Your task to perform on an android device: Open privacy settings Image 0: 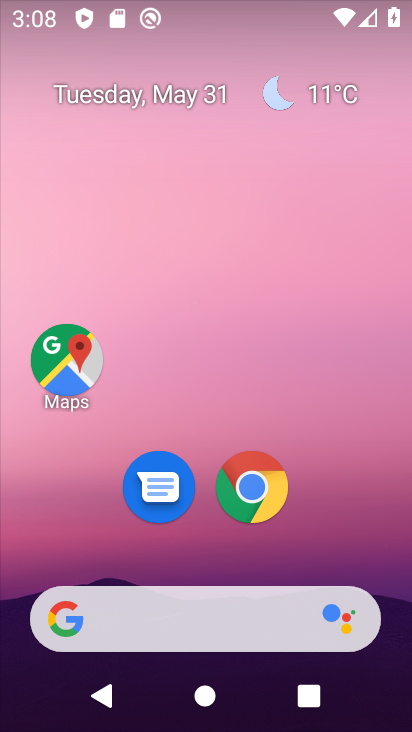
Step 0: drag from (314, 543) to (246, 90)
Your task to perform on an android device: Open privacy settings Image 1: 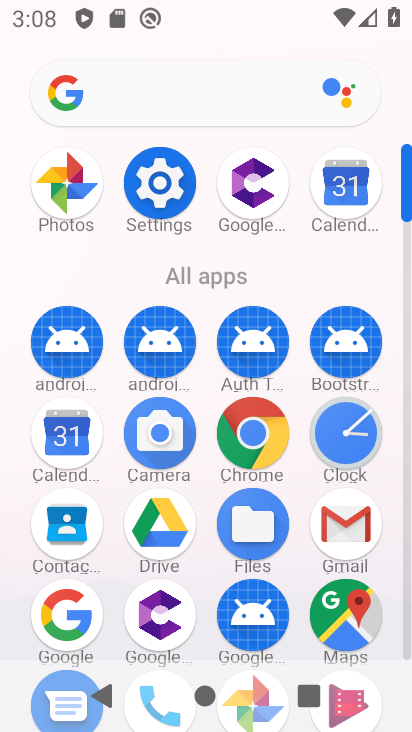
Step 1: click (160, 183)
Your task to perform on an android device: Open privacy settings Image 2: 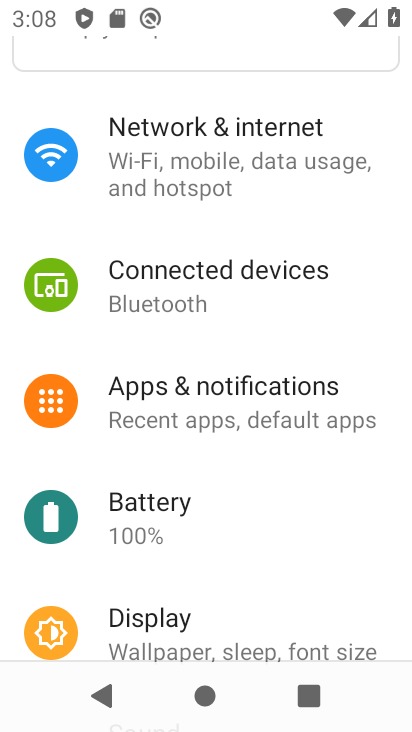
Step 2: drag from (158, 566) to (203, 477)
Your task to perform on an android device: Open privacy settings Image 3: 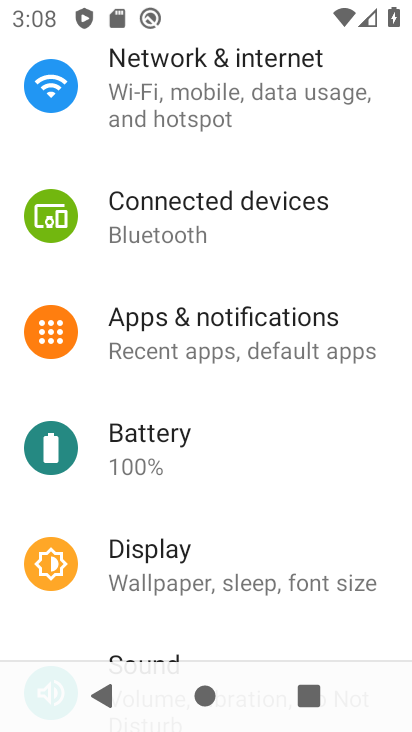
Step 3: drag from (142, 503) to (201, 405)
Your task to perform on an android device: Open privacy settings Image 4: 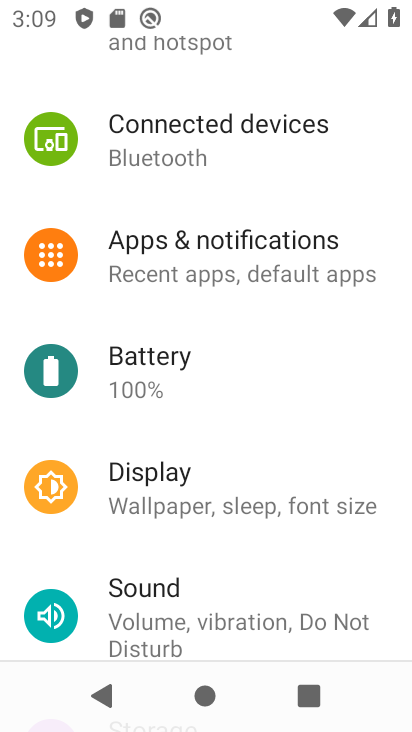
Step 4: drag from (148, 543) to (251, 425)
Your task to perform on an android device: Open privacy settings Image 5: 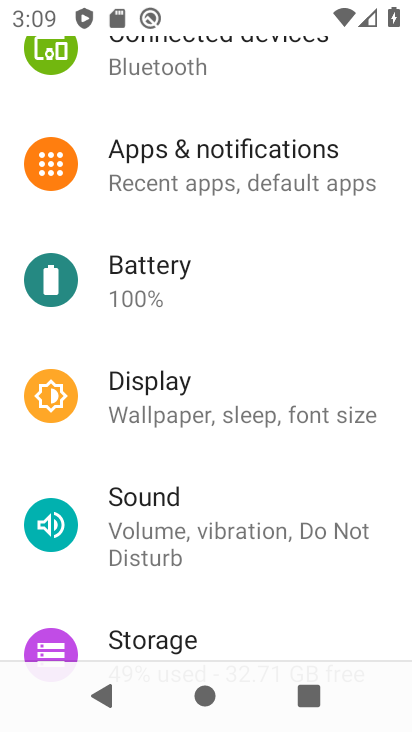
Step 5: drag from (133, 581) to (251, 444)
Your task to perform on an android device: Open privacy settings Image 6: 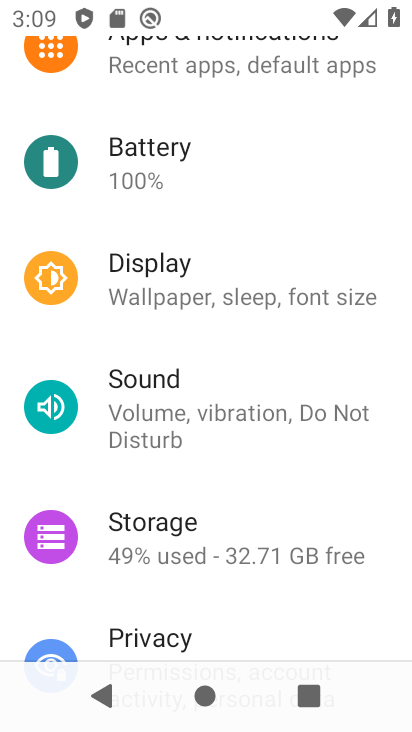
Step 6: drag from (128, 479) to (219, 353)
Your task to perform on an android device: Open privacy settings Image 7: 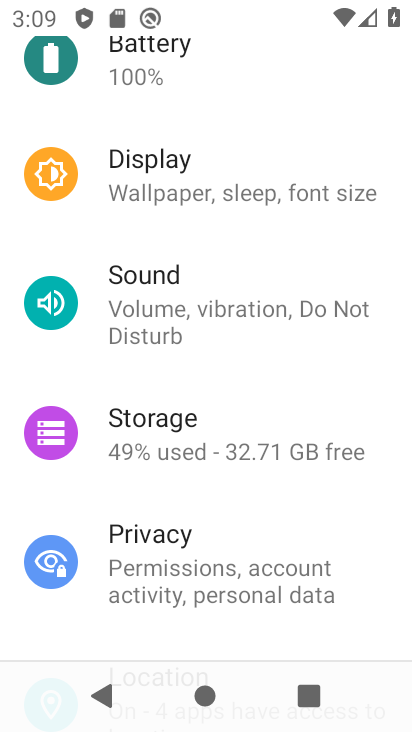
Step 7: drag from (122, 491) to (253, 349)
Your task to perform on an android device: Open privacy settings Image 8: 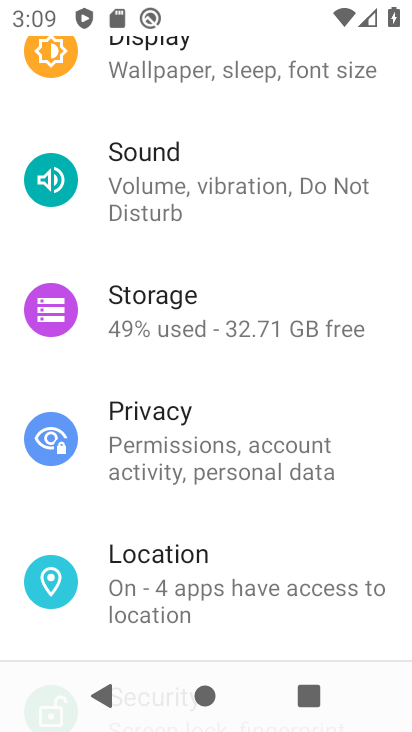
Step 8: click (171, 441)
Your task to perform on an android device: Open privacy settings Image 9: 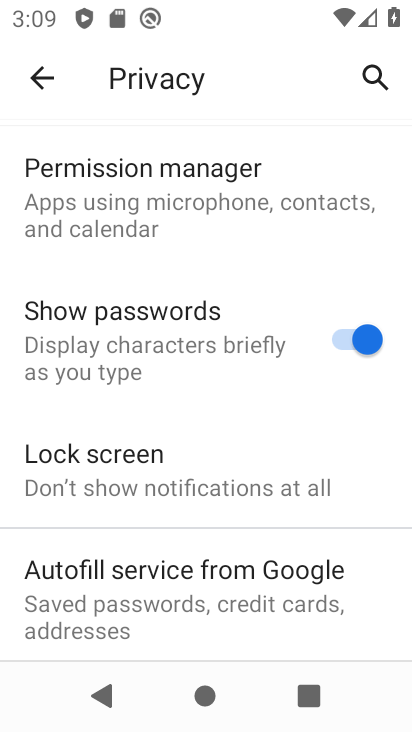
Step 9: task complete